Your task to perform on an android device: Set the phone to "Do not disturb". Image 0: 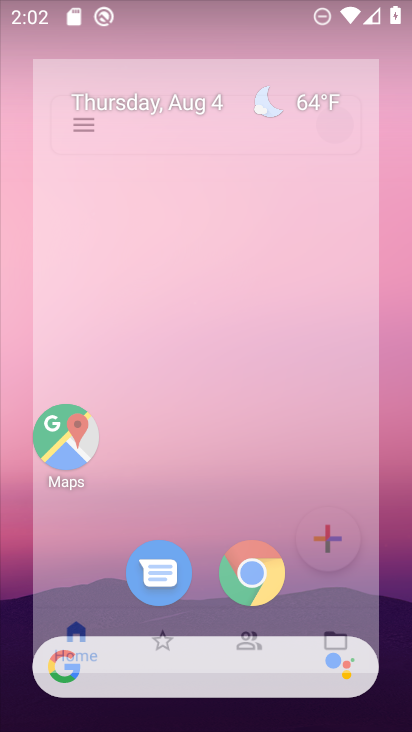
Step 0: drag from (343, 508) to (291, 109)
Your task to perform on an android device: Set the phone to "Do not disturb". Image 1: 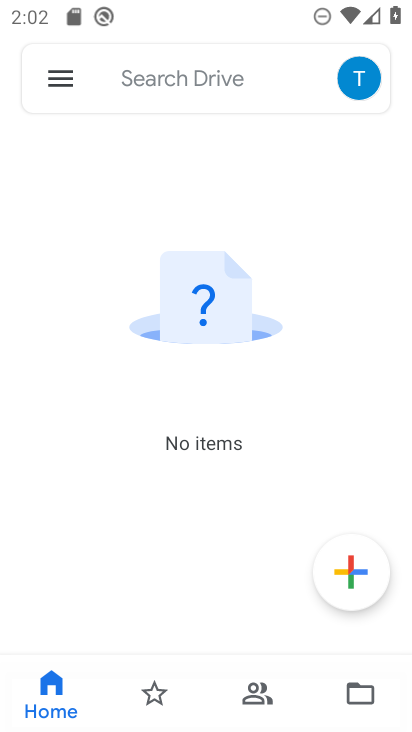
Step 1: task complete